Your task to perform on an android device: Show me the alarms in the clock app Image 0: 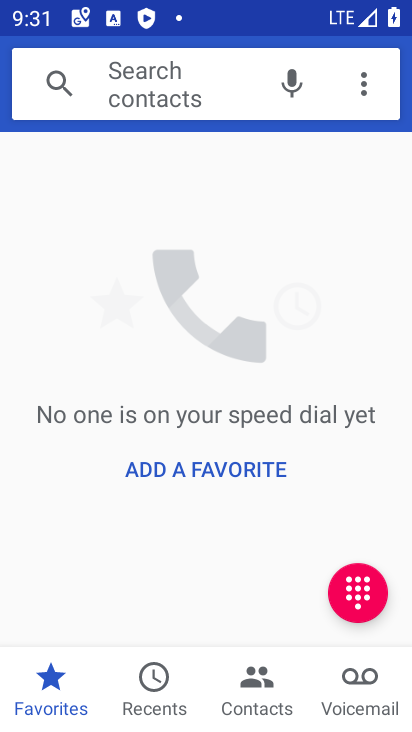
Step 0: press home button
Your task to perform on an android device: Show me the alarms in the clock app Image 1: 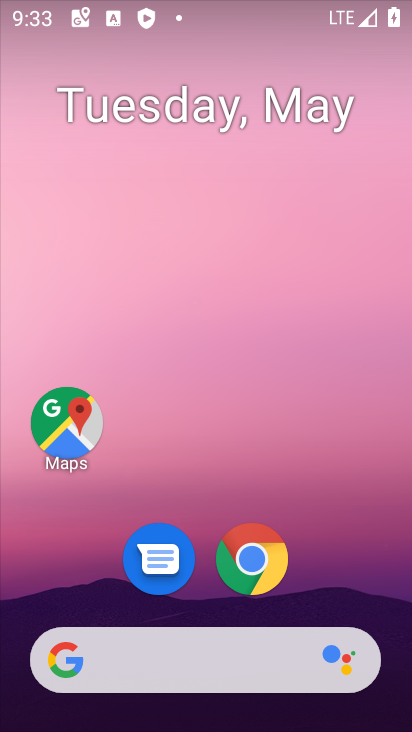
Step 1: drag from (200, 620) to (202, 180)
Your task to perform on an android device: Show me the alarms in the clock app Image 2: 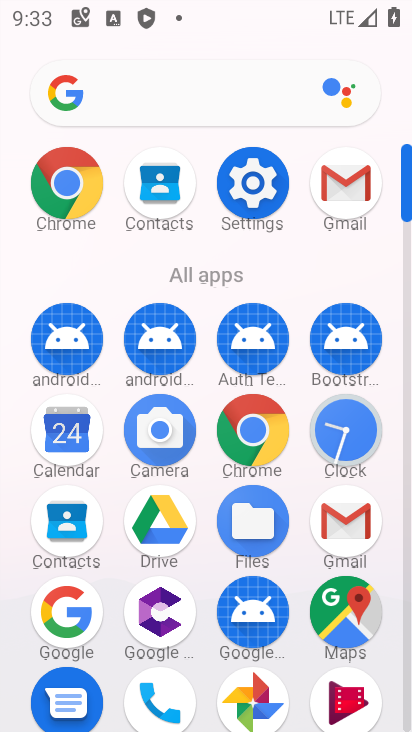
Step 2: click (356, 432)
Your task to perform on an android device: Show me the alarms in the clock app Image 3: 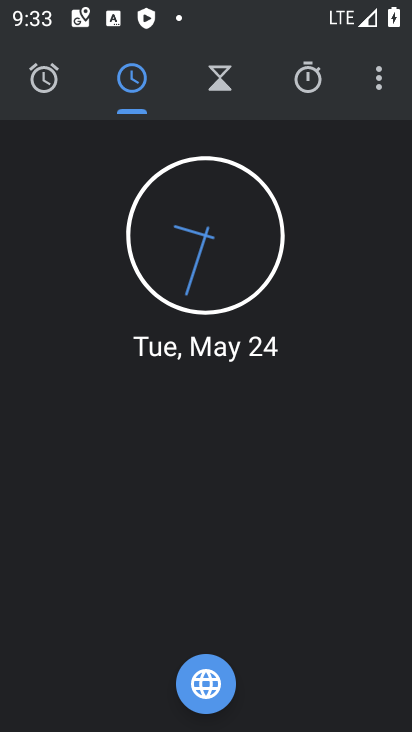
Step 3: click (36, 89)
Your task to perform on an android device: Show me the alarms in the clock app Image 4: 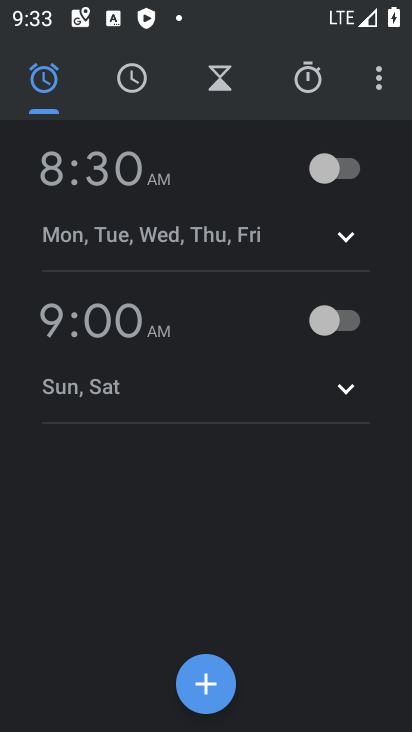
Step 4: task complete